Your task to perform on an android device: turn smart compose on in the gmail app Image 0: 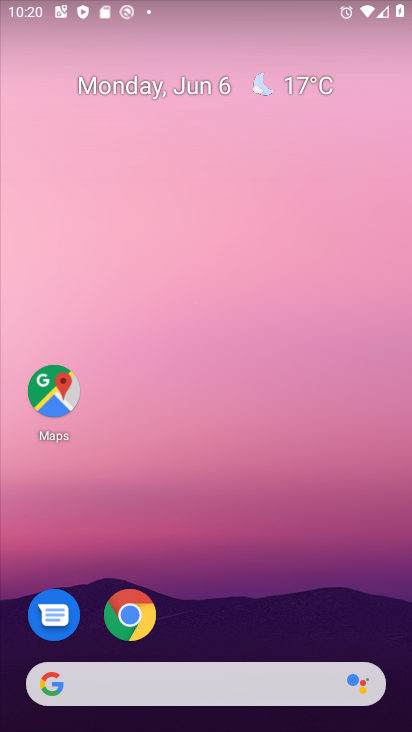
Step 0: drag from (219, 644) to (194, 68)
Your task to perform on an android device: turn smart compose on in the gmail app Image 1: 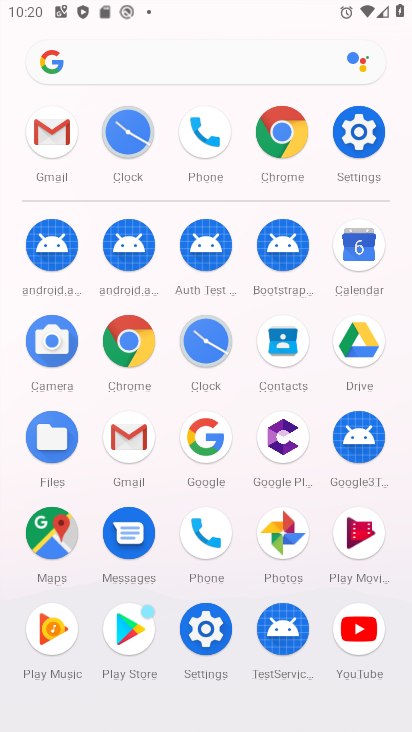
Step 1: click (129, 428)
Your task to perform on an android device: turn smart compose on in the gmail app Image 2: 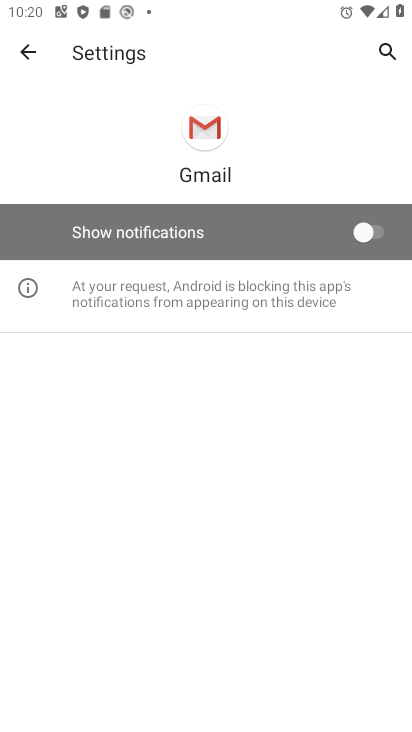
Step 2: click (29, 49)
Your task to perform on an android device: turn smart compose on in the gmail app Image 3: 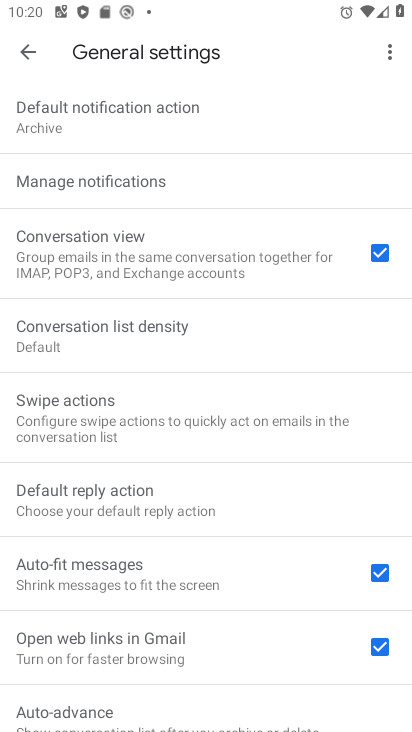
Step 3: click (26, 56)
Your task to perform on an android device: turn smart compose on in the gmail app Image 4: 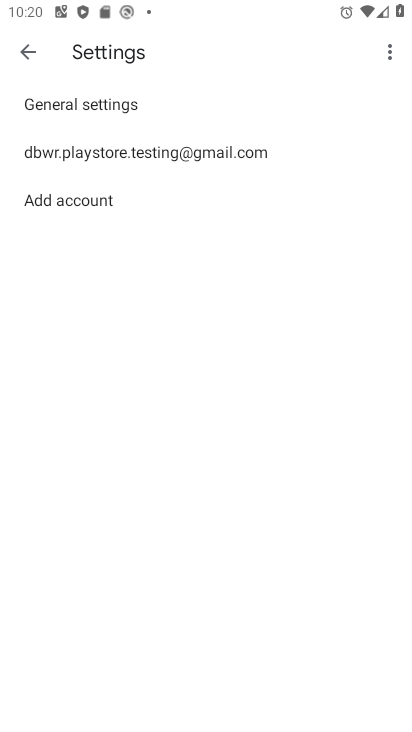
Step 4: click (154, 152)
Your task to perform on an android device: turn smart compose on in the gmail app Image 5: 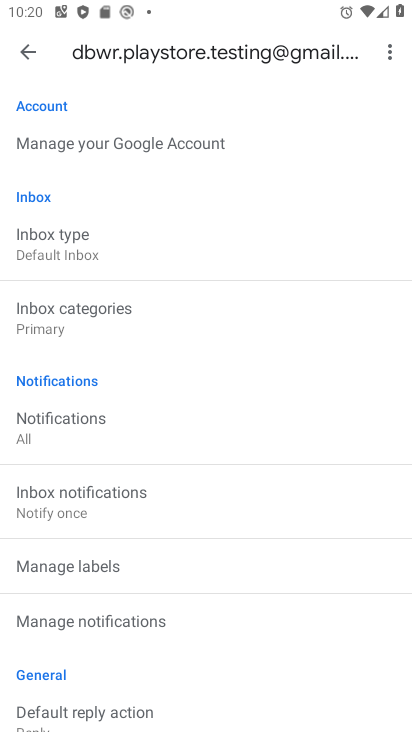
Step 5: task complete